Your task to perform on an android device: Search for "jbl charge 4" on target, select the first entry, add it to the cart, then select checkout. Image 0: 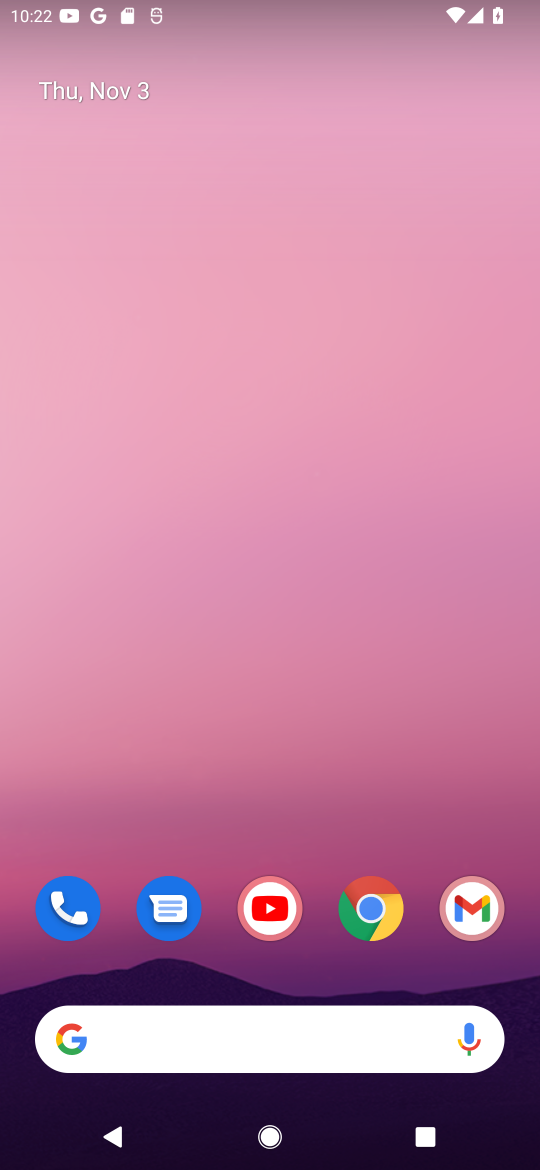
Step 0: click (365, 908)
Your task to perform on an android device: Search for "jbl charge 4" on target, select the first entry, add it to the cart, then select checkout. Image 1: 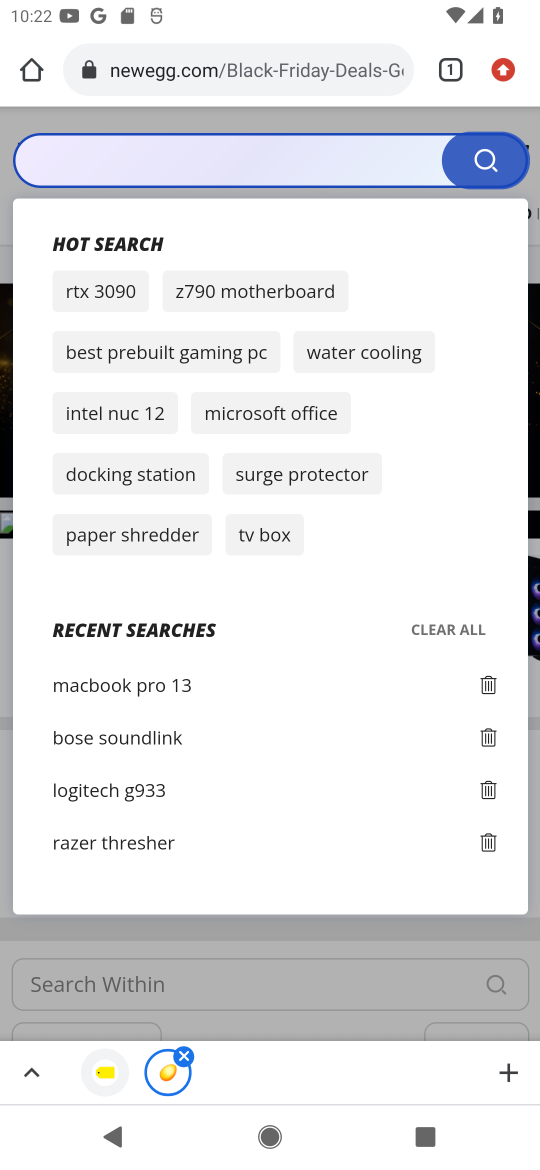
Step 1: click (178, 63)
Your task to perform on an android device: Search for "jbl charge 4" on target, select the first entry, add it to the cart, then select checkout. Image 2: 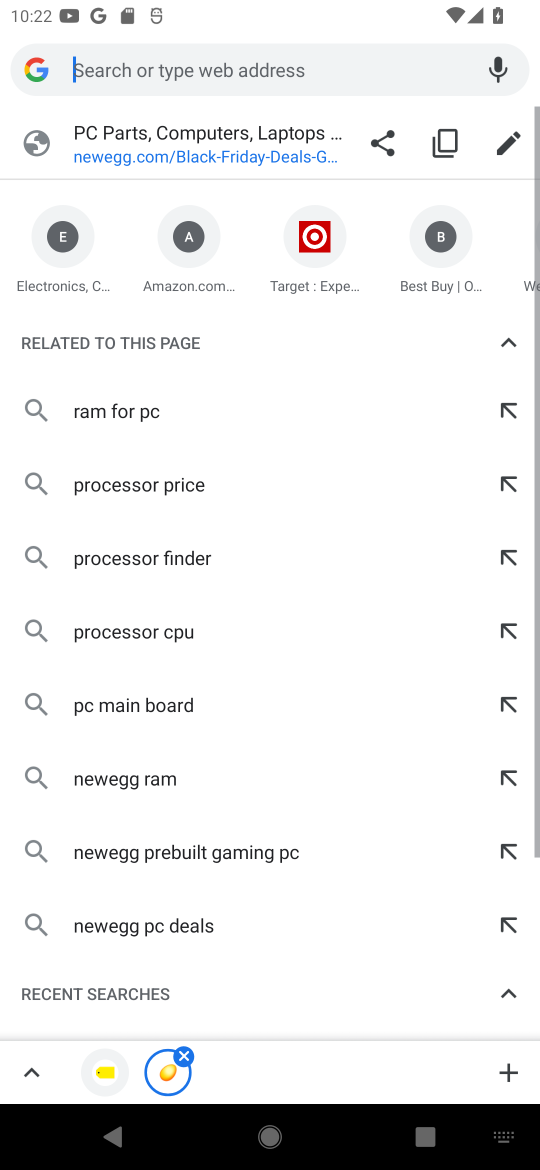
Step 2: click (315, 243)
Your task to perform on an android device: Search for "jbl charge 4" on target, select the first entry, add it to the cart, then select checkout. Image 3: 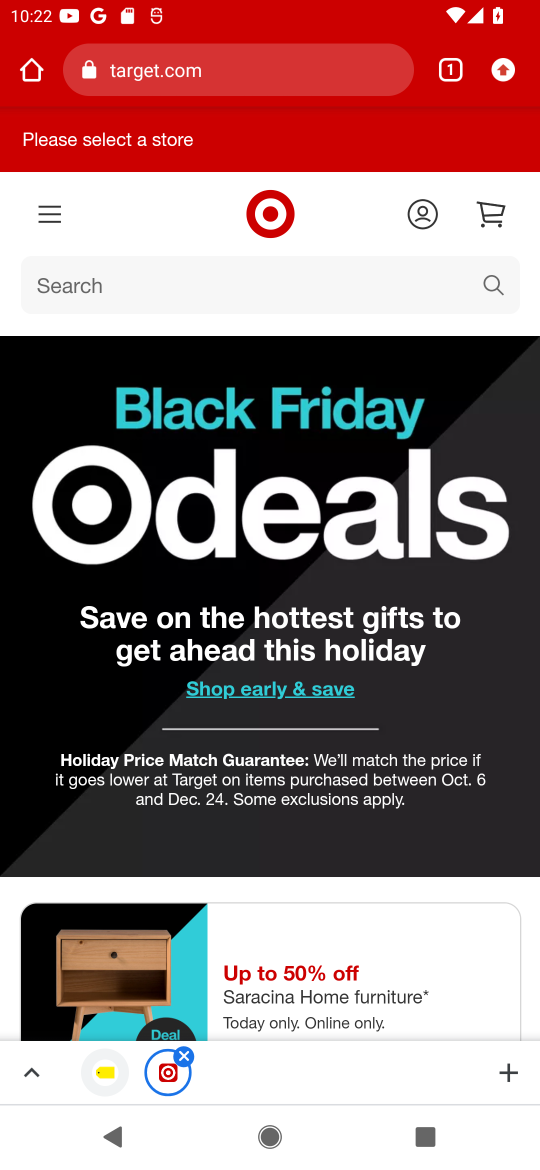
Step 3: click (479, 279)
Your task to perform on an android device: Search for "jbl charge 4" on target, select the first entry, add it to the cart, then select checkout. Image 4: 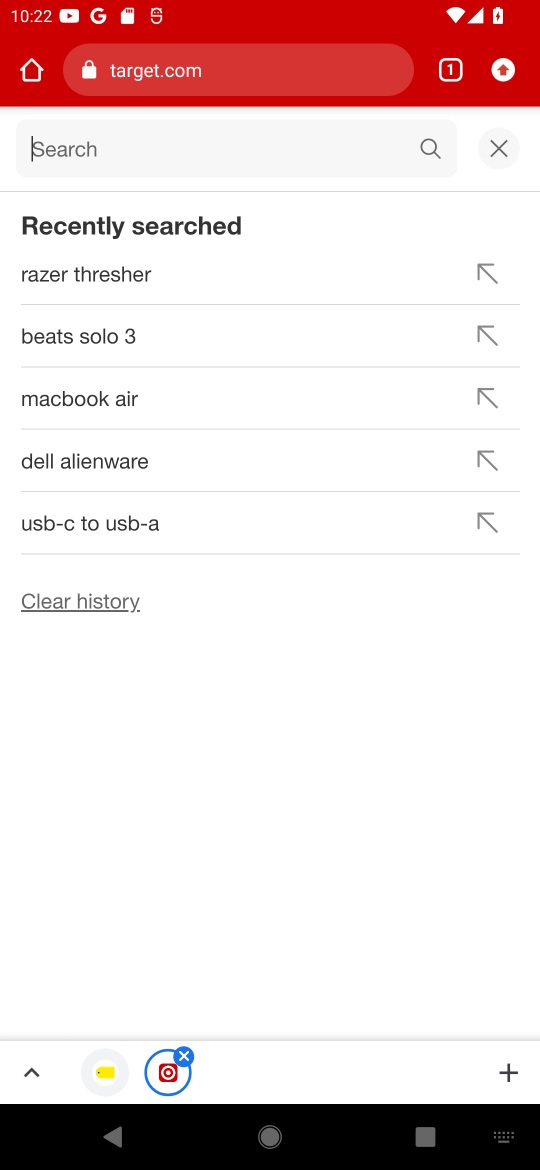
Step 4: type "jbl charge 4"
Your task to perform on an android device: Search for "jbl charge 4" on target, select the first entry, add it to the cart, then select checkout. Image 5: 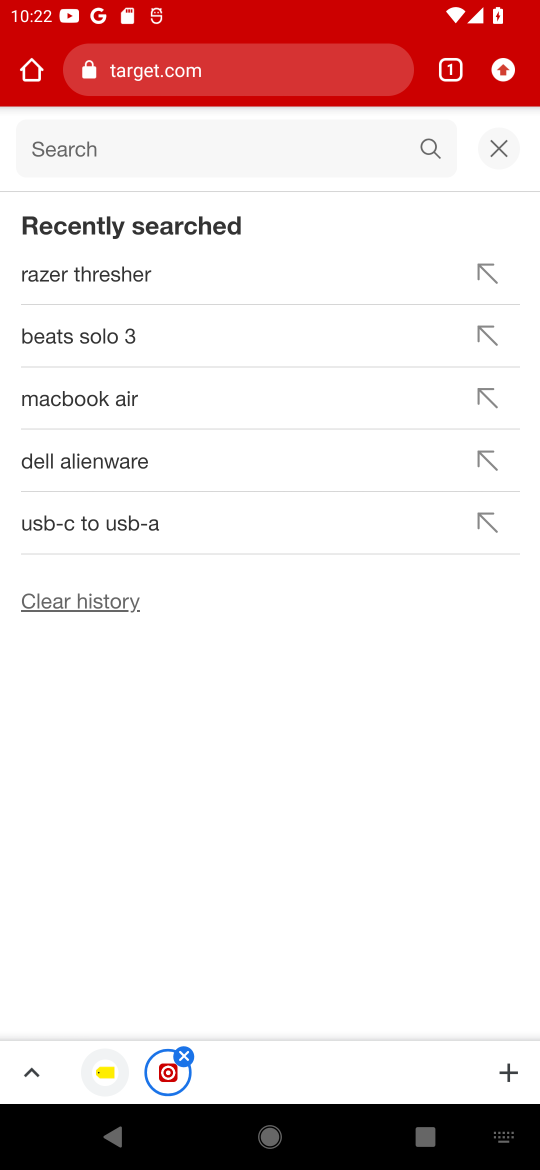
Step 5: press enter
Your task to perform on an android device: Search for "jbl charge 4" on target, select the first entry, add it to the cart, then select checkout. Image 6: 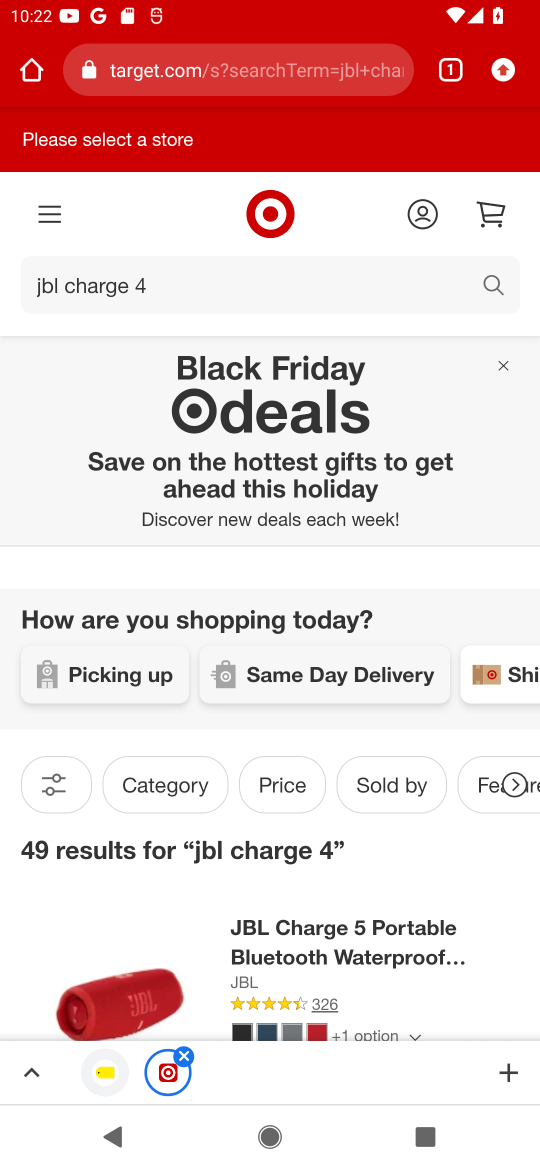
Step 6: task complete